Your task to perform on an android device: set the timer Image 0: 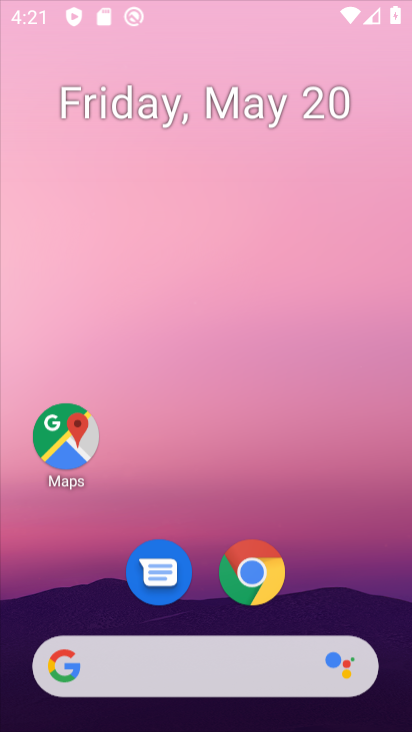
Step 0: drag from (42, 68) to (274, 70)
Your task to perform on an android device: set the timer Image 1: 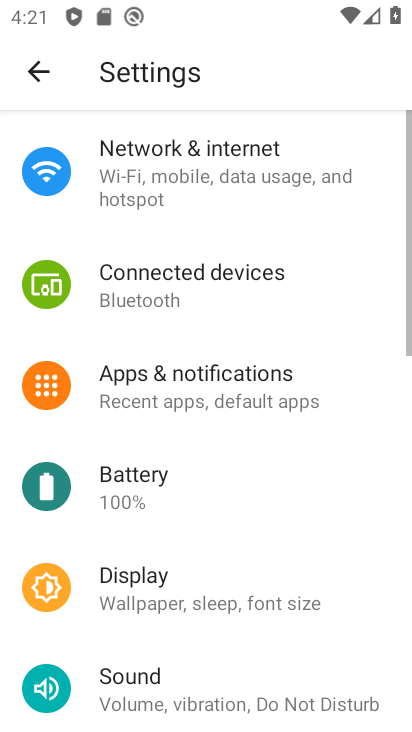
Step 1: drag from (334, 583) to (266, 45)
Your task to perform on an android device: set the timer Image 2: 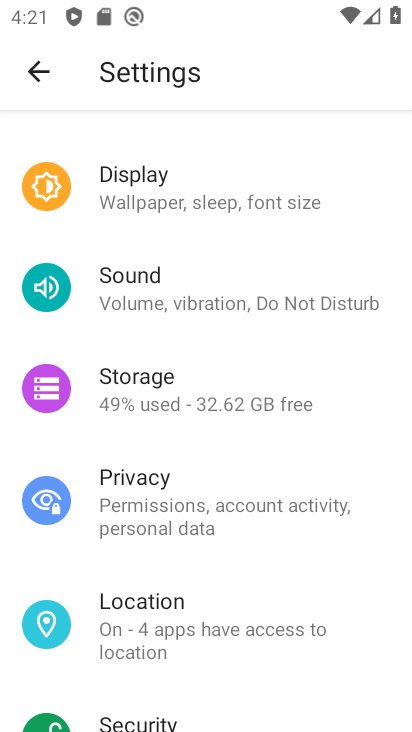
Step 2: click (35, 72)
Your task to perform on an android device: set the timer Image 3: 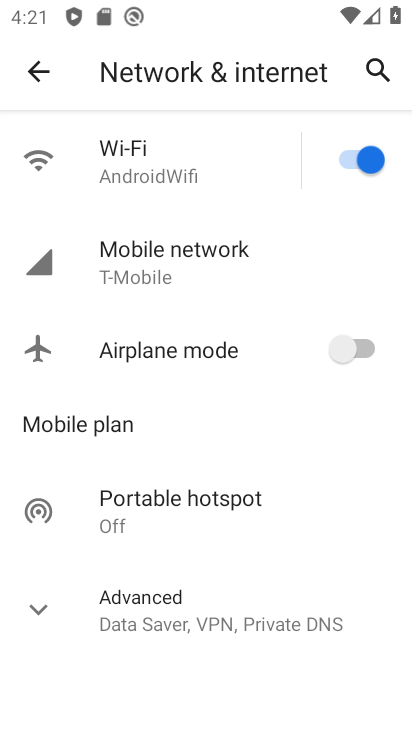
Step 3: click (38, 77)
Your task to perform on an android device: set the timer Image 4: 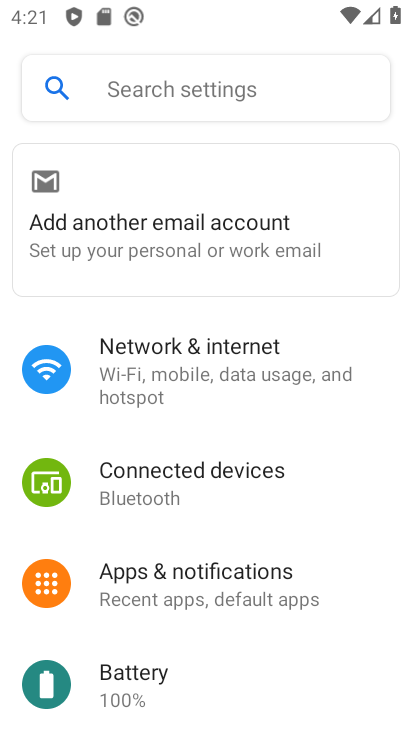
Step 4: press back button
Your task to perform on an android device: set the timer Image 5: 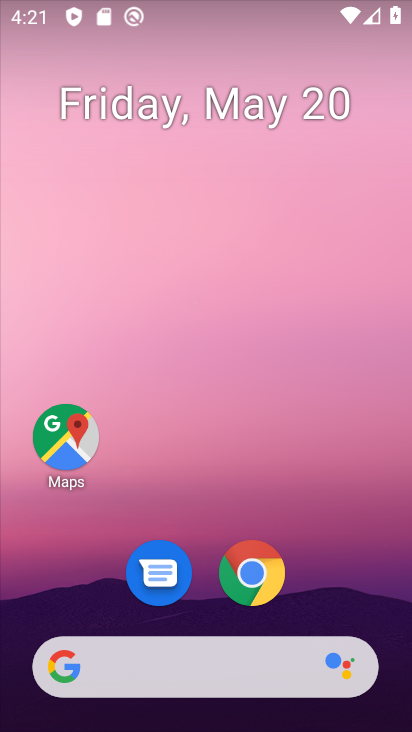
Step 5: drag from (331, 701) to (178, 166)
Your task to perform on an android device: set the timer Image 6: 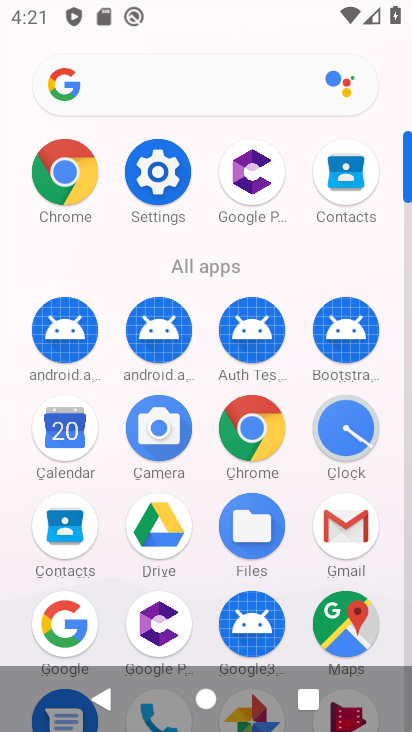
Step 6: click (350, 453)
Your task to perform on an android device: set the timer Image 7: 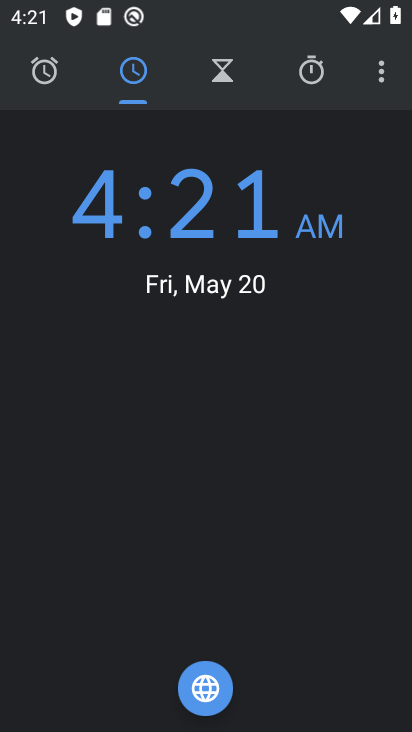
Step 7: click (303, 83)
Your task to perform on an android device: set the timer Image 8: 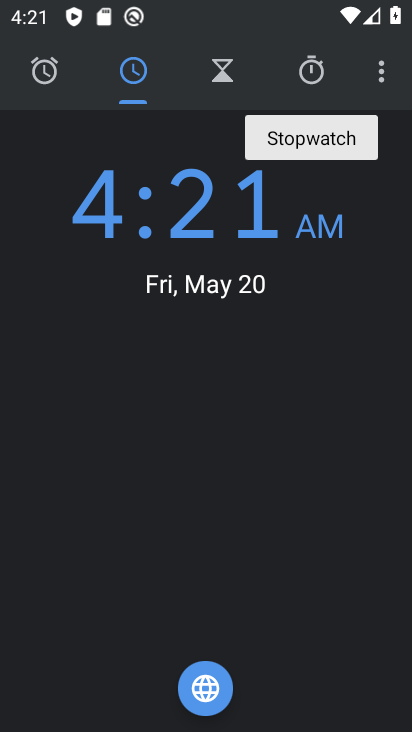
Step 8: click (309, 79)
Your task to perform on an android device: set the timer Image 9: 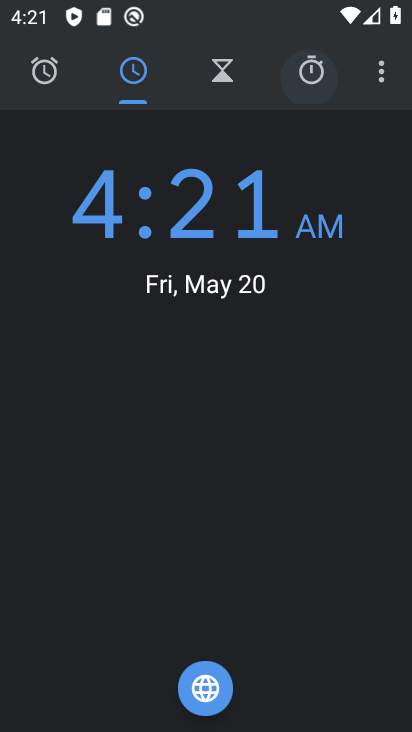
Step 9: click (309, 79)
Your task to perform on an android device: set the timer Image 10: 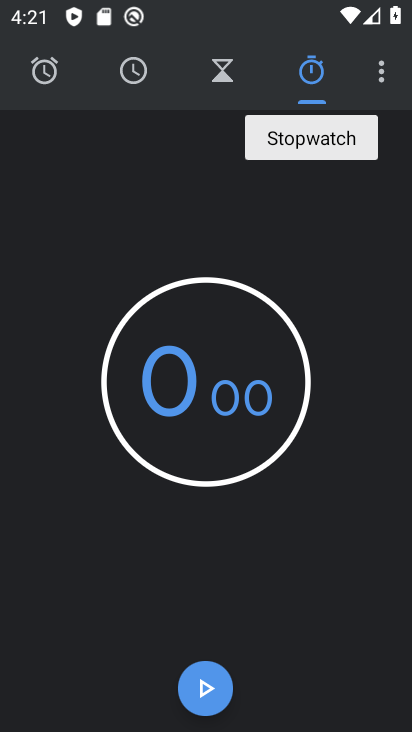
Step 10: click (195, 693)
Your task to perform on an android device: set the timer Image 11: 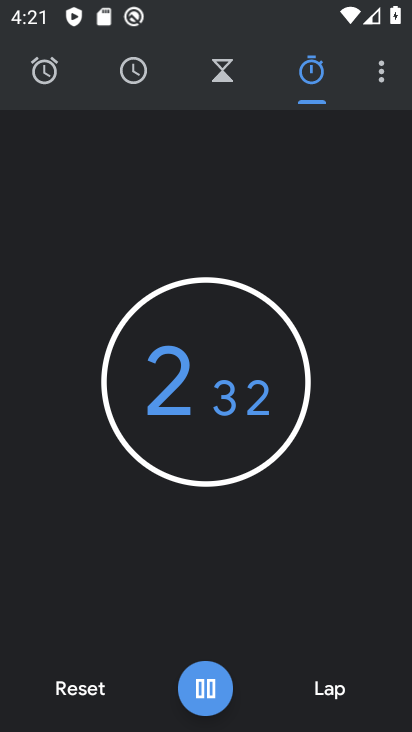
Step 11: click (206, 685)
Your task to perform on an android device: set the timer Image 12: 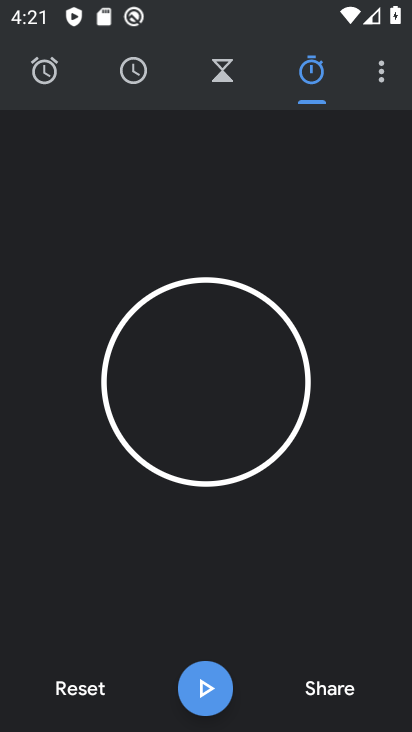
Step 12: task complete